Your task to perform on an android device: Show the shopping cart on costco.com. Add "razer blade" to the cart on costco.com, then select checkout. Image 0: 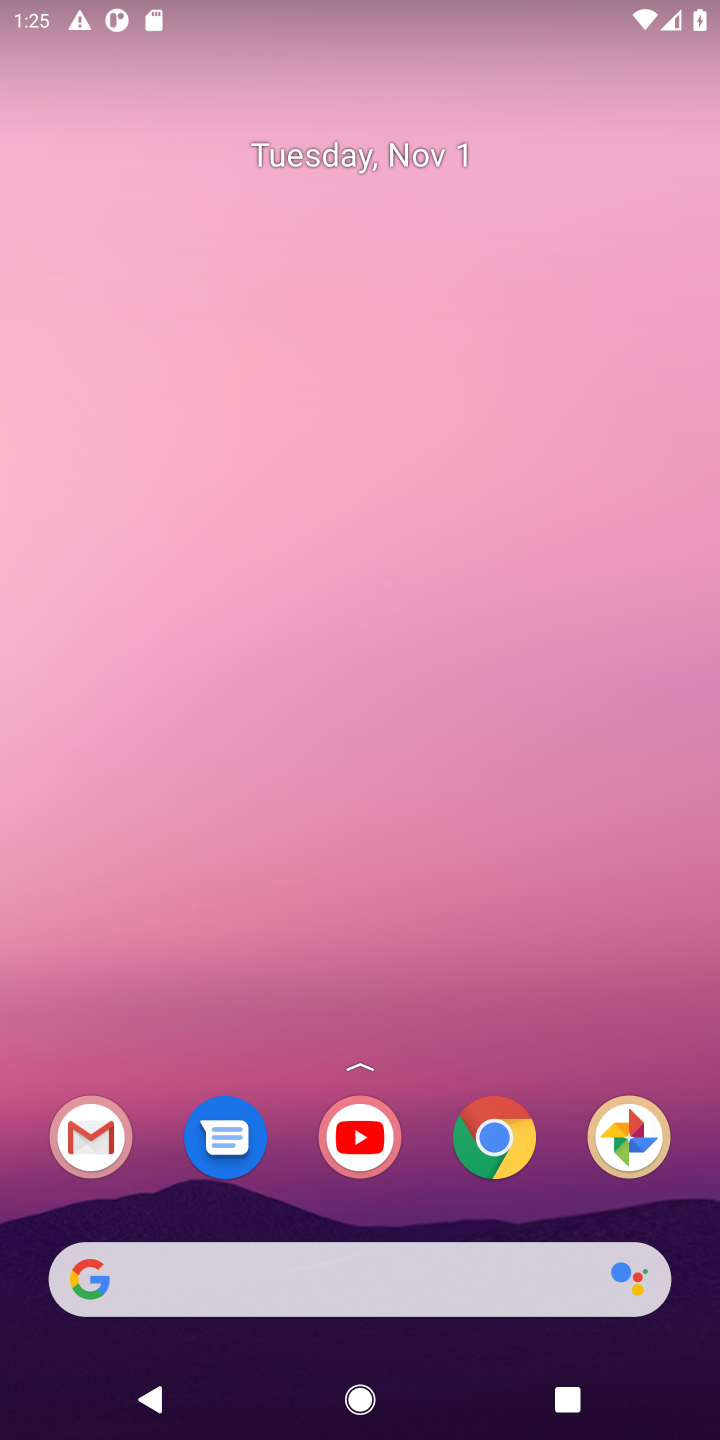
Step 0: drag from (450, 1327) to (564, 143)
Your task to perform on an android device: Show the shopping cart on costco.com. Add "razer blade" to the cart on costco.com, then select checkout. Image 1: 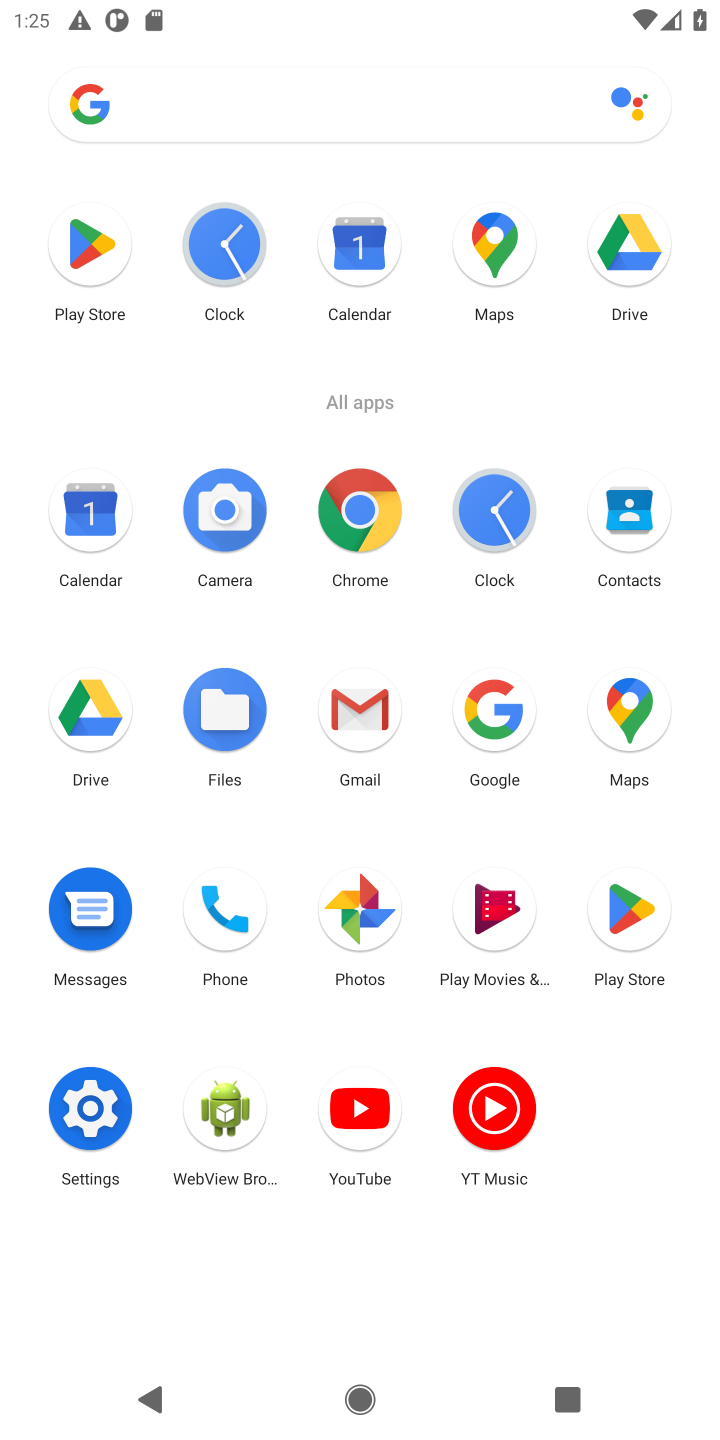
Step 1: click (347, 511)
Your task to perform on an android device: Show the shopping cart on costco.com. Add "razer blade" to the cart on costco.com, then select checkout. Image 2: 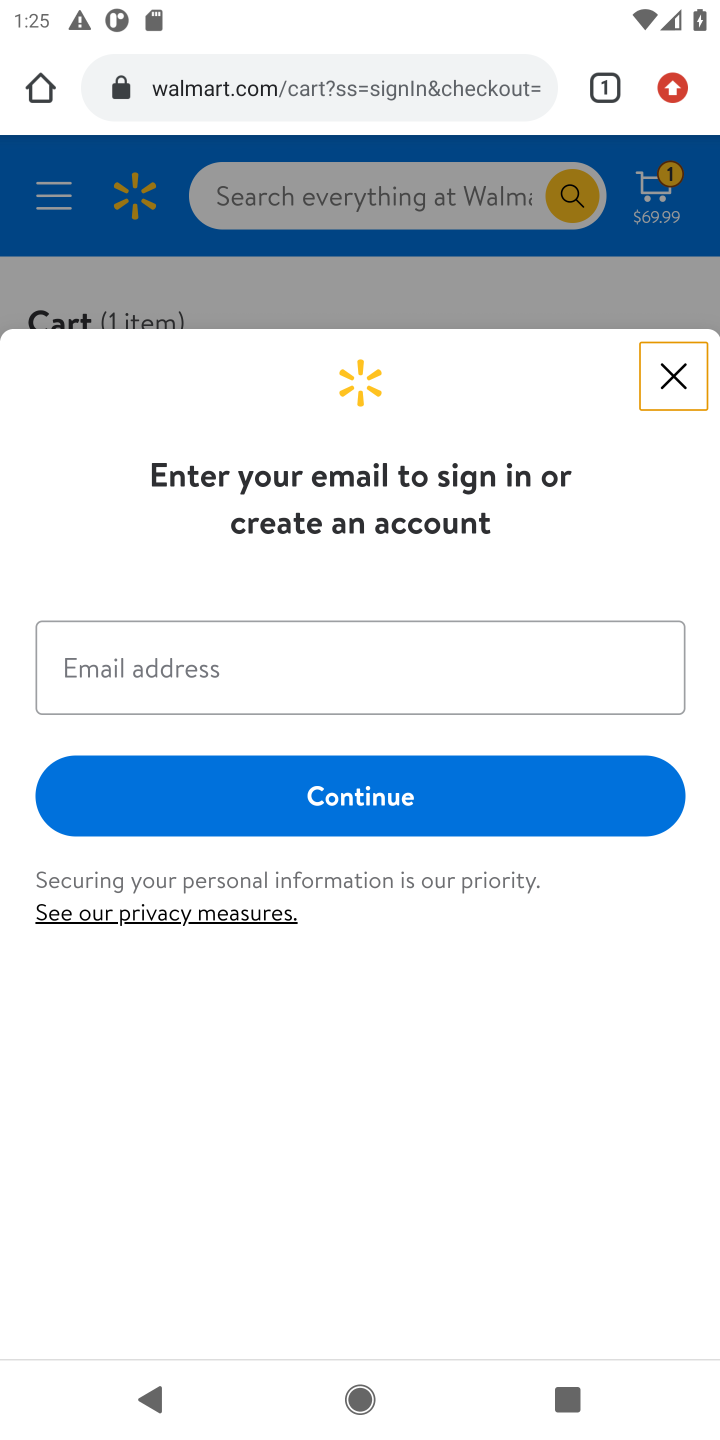
Step 2: click (283, 103)
Your task to perform on an android device: Show the shopping cart on costco.com. Add "razer blade" to the cart on costco.com, then select checkout. Image 3: 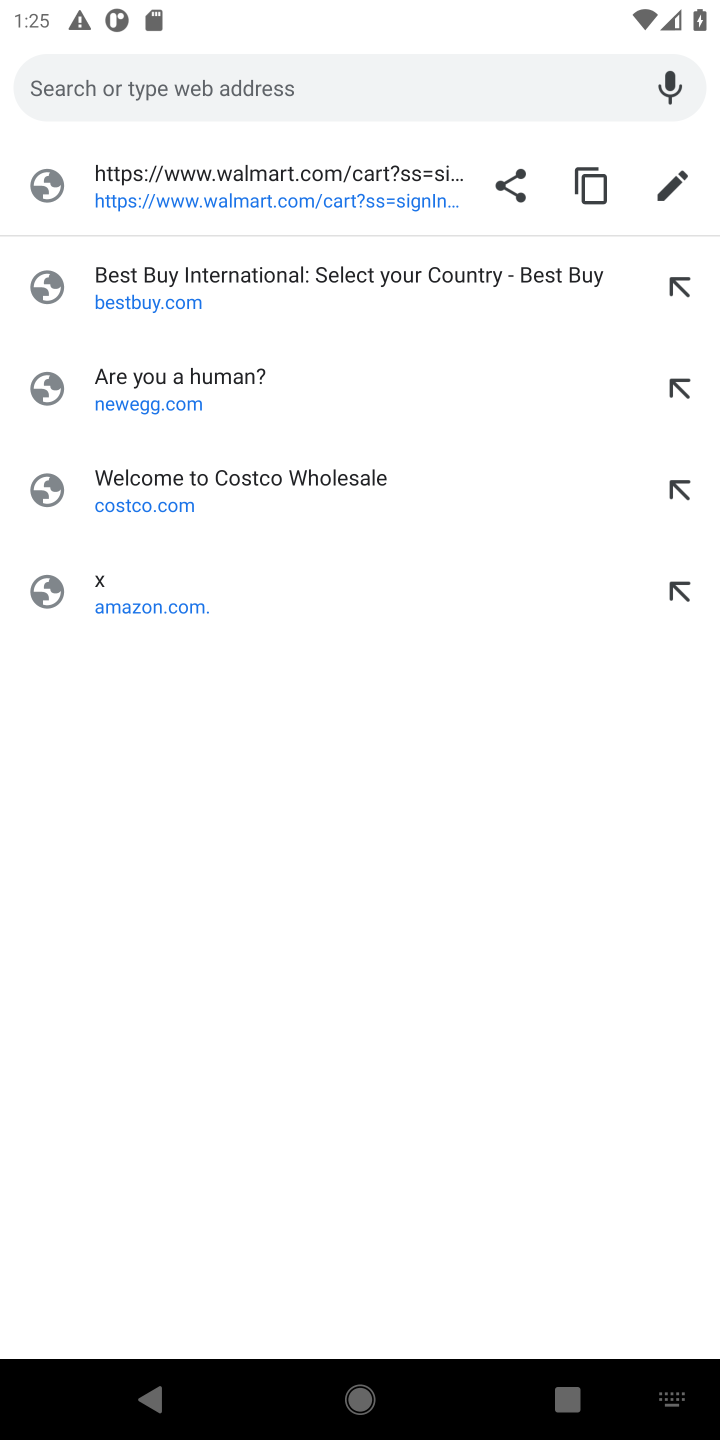
Step 3: type "costco.com"
Your task to perform on an android device: Show the shopping cart on costco.com. Add "razer blade" to the cart on costco.com, then select checkout. Image 4: 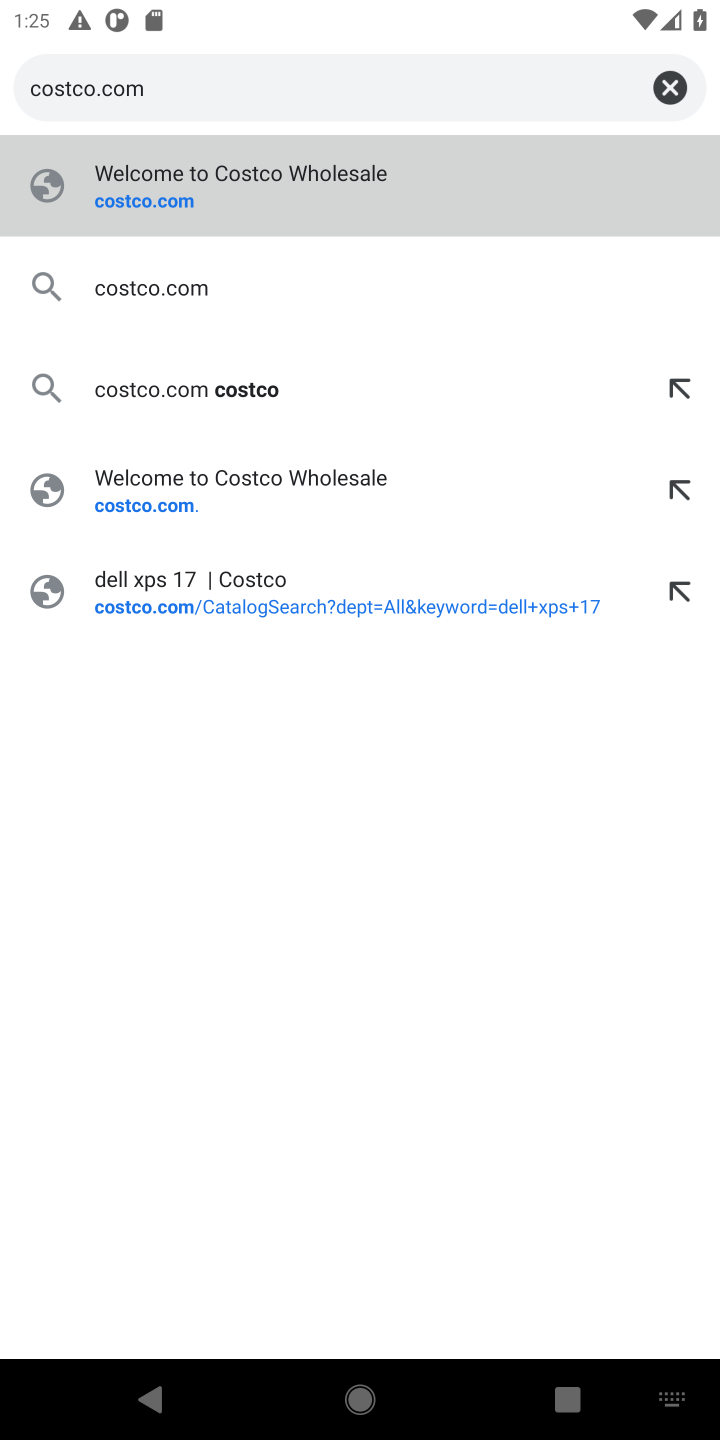
Step 4: press enter
Your task to perform on an android device: Show the shopping cart on costco.com. Add "razer blade" to the cart on costco.com, then select checkout. Image 5: 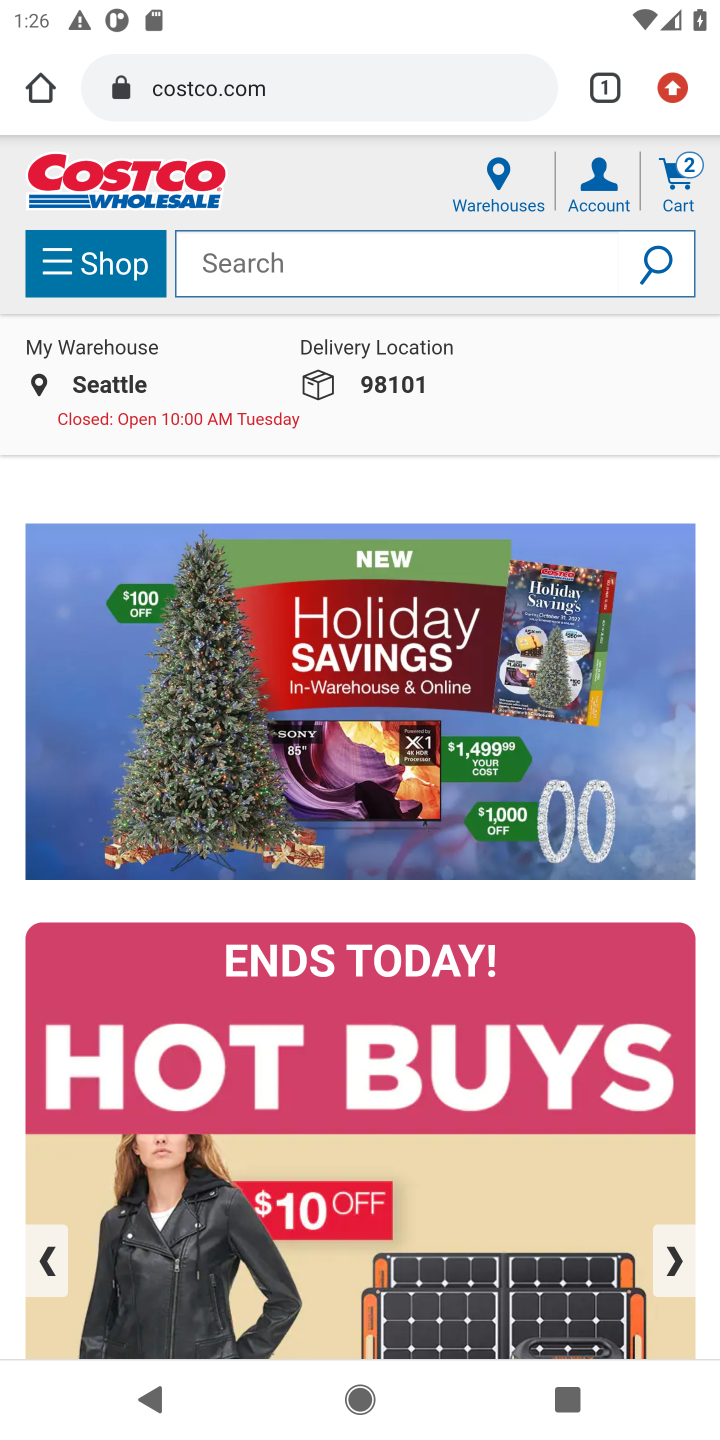
Step 5: click (315, 245)
Your task to perform on an android device: Show the shopping cart on costco.com. Add "razer blade" to the cart on costco.com, then select checkout. Image 6: 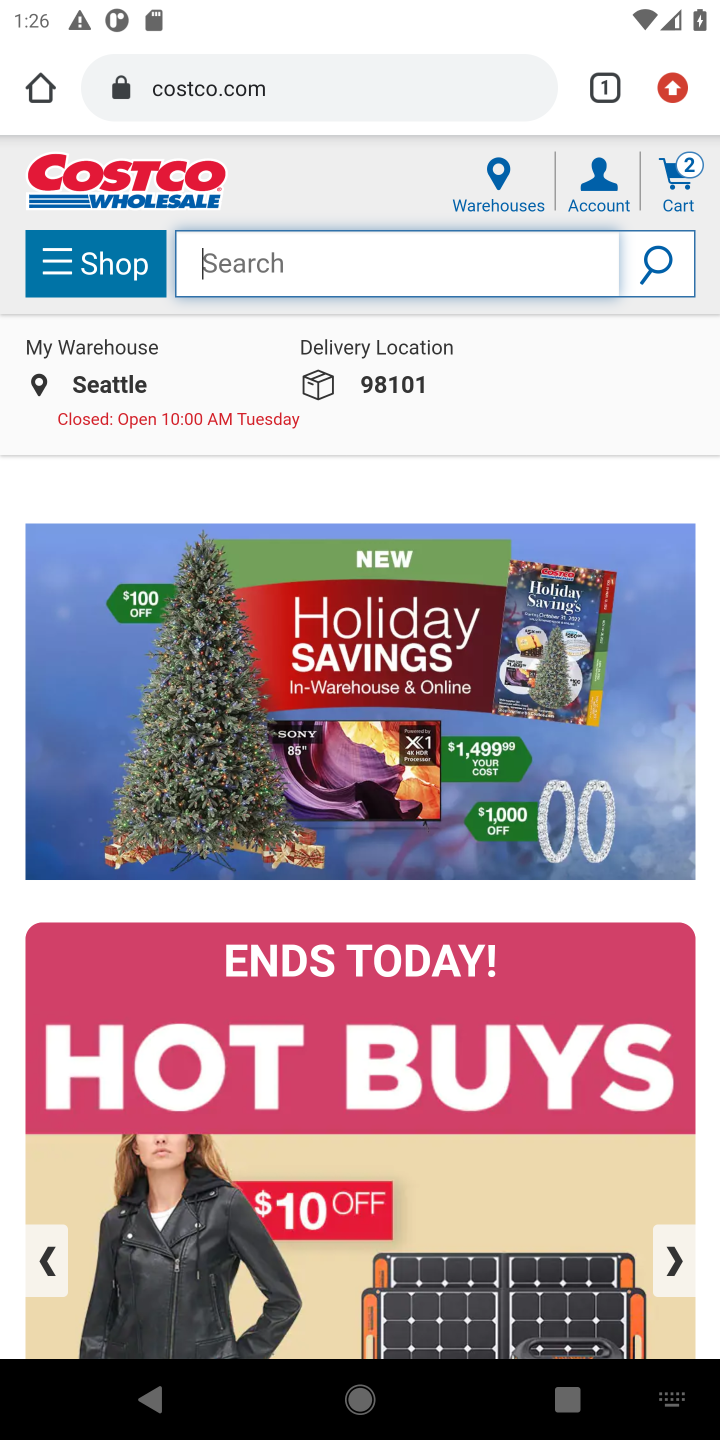
Step 6: type "razer blade"
Your task to perform on an android device: Show the shopping cart on costco.com. Add "razer blade" to the cart on costco.com, then select checkout. Image 7: 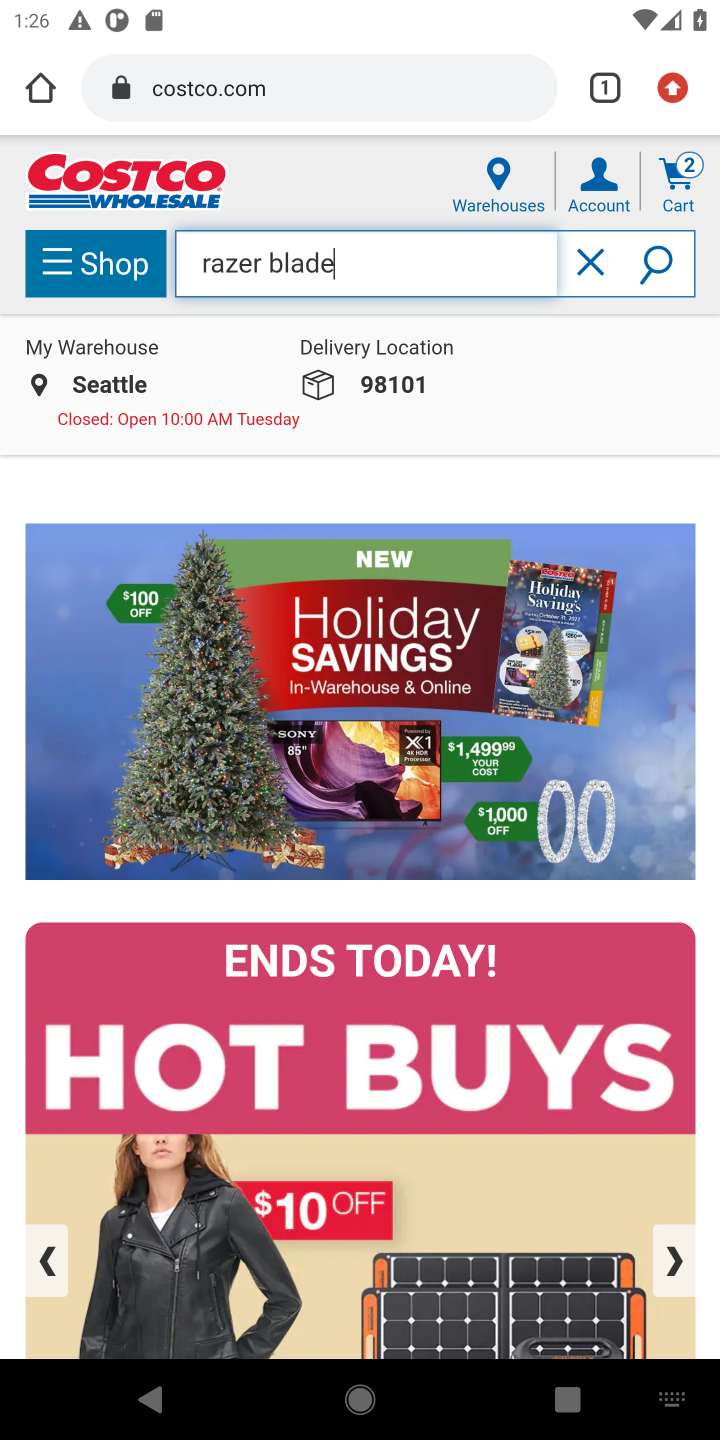
Step 7: press enter
Your task to perform on an android device: Show the shopping cart on costco.com. Add "razer blade" to the cart on costco.com, then select checkout. Image 8: 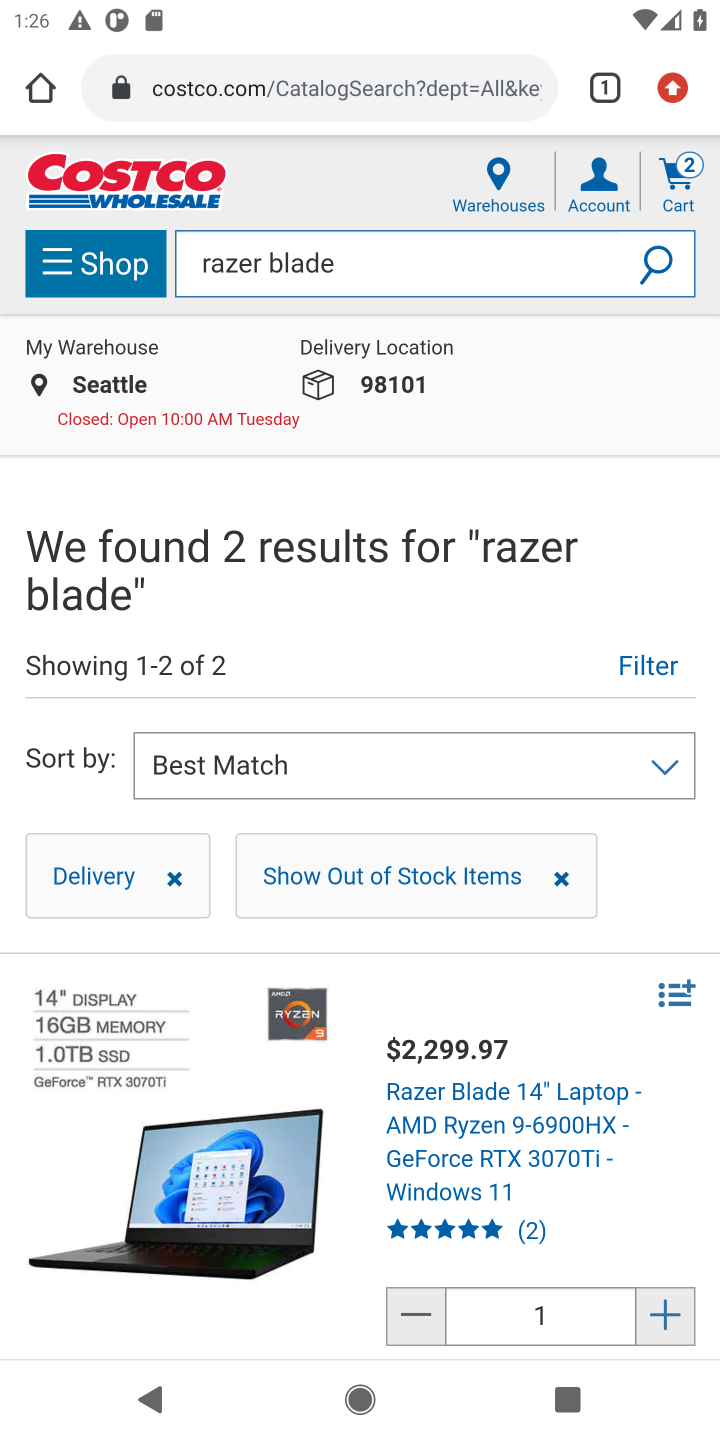
Step 8: drag from (418, 796) to (500, 450)
Your task to perform on an android device: Show the shopping cart on costco.com. Add "razer blade" to the cart on costco.com, then select checkout. Image 9: 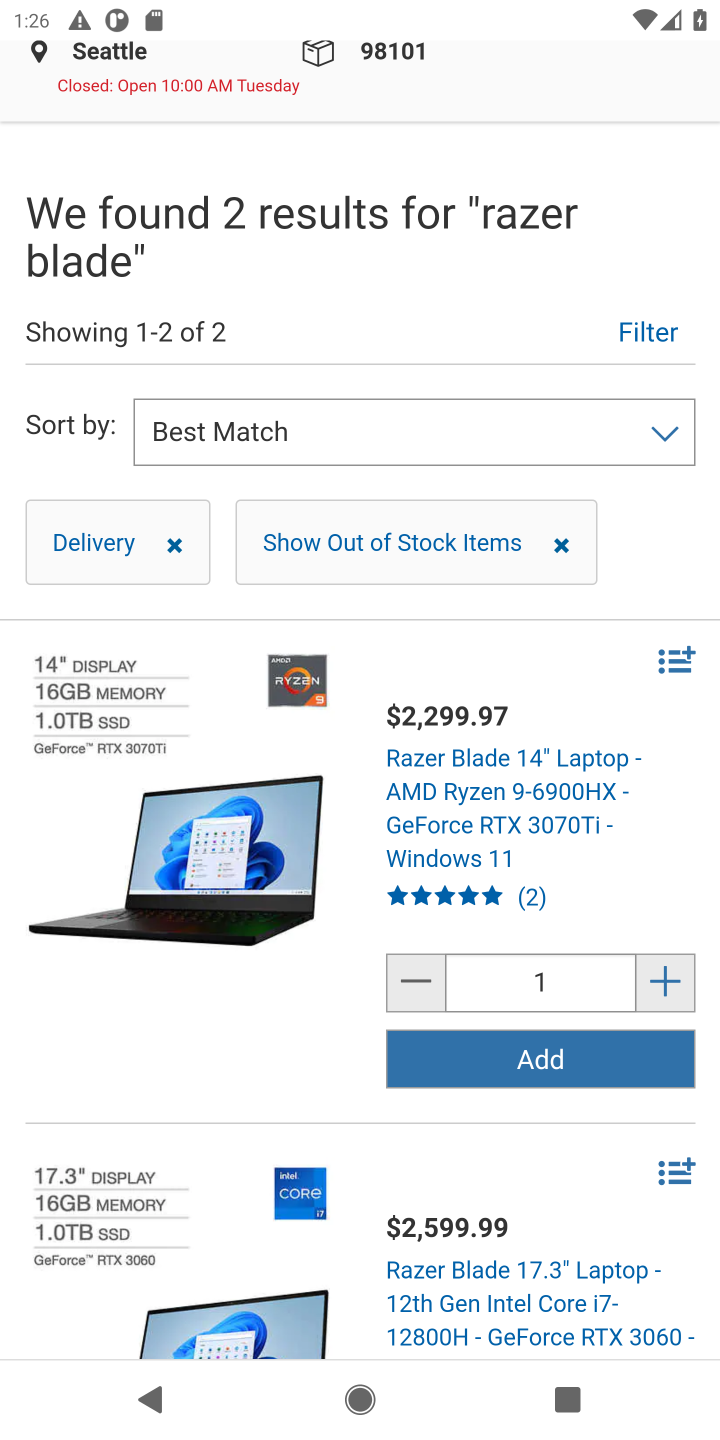
Step 9: click (524, 1061)
Your task to perform on an android device: Show the shopping cart on costco.com. Add "razer blade" to the cart on costco.com, then select checkout. Image 10: 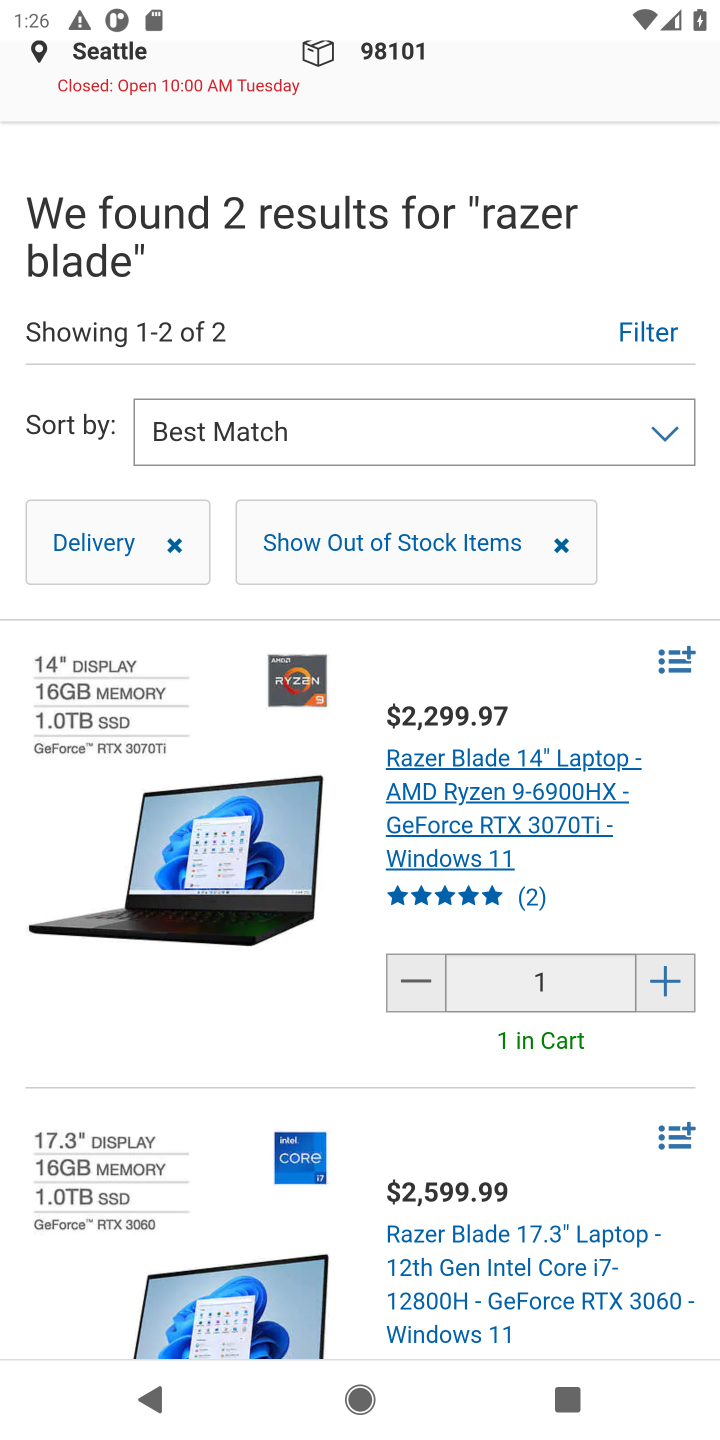
Step 10: drag from (516, 562) to (520, 973)
Your task to perform on an android device: Show the shopping cart on costco.com. Add "razer blade" to the cart on costco.com, then select checkout. Image 11: 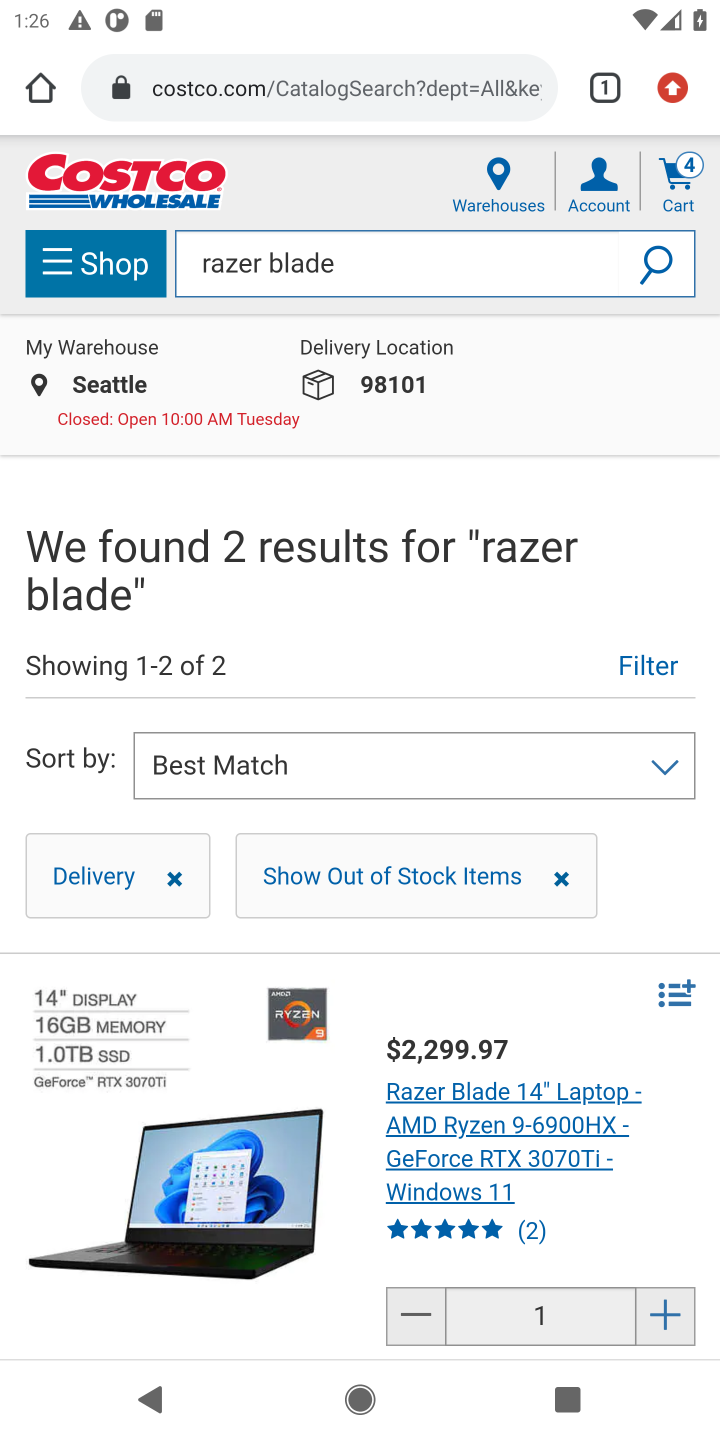
Step 11: click (696, 169)
Your task to perform on an android device: Show the shopping cart on costco.com. Add "razer blade" to the cart on costco.com, then select checkout. Image 12: 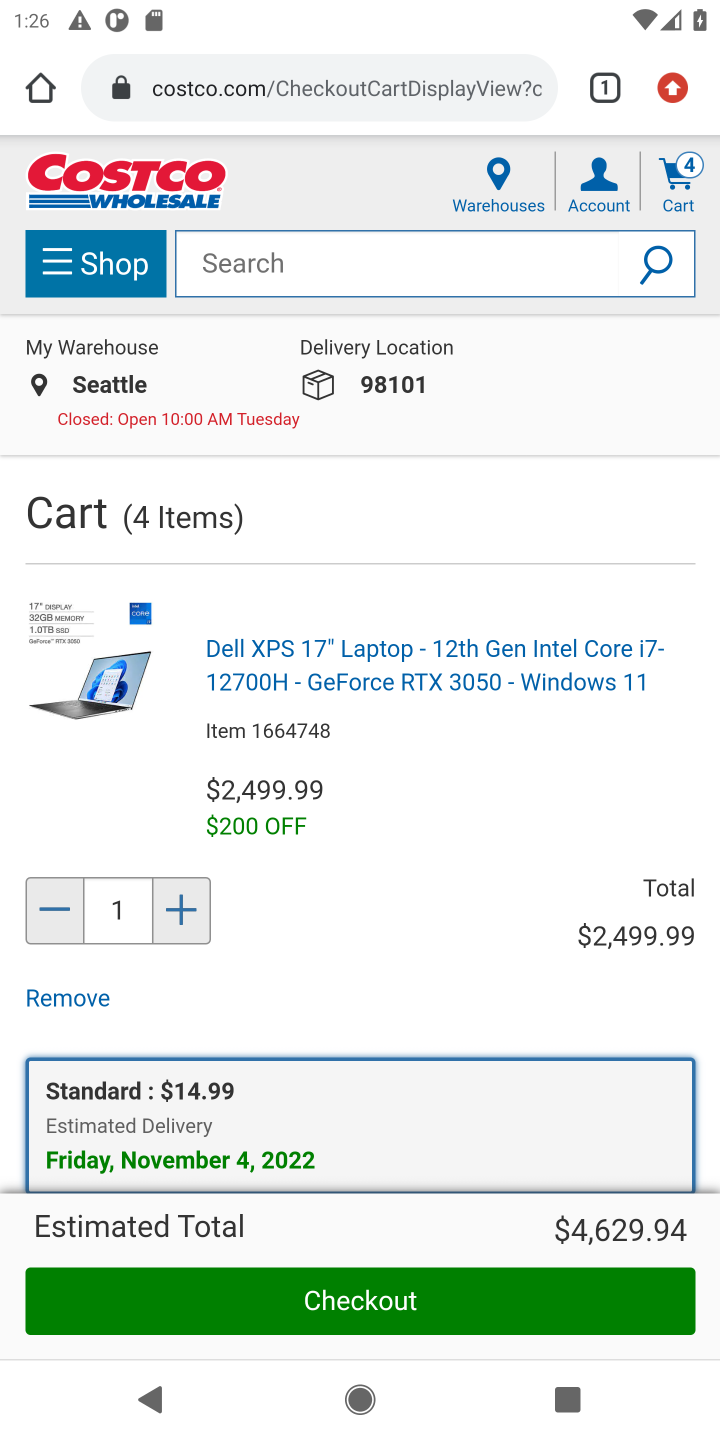
Step 12: click (401, 1291)
Your task to perform on an android device: Show the shopping cart on costco.com. Add "razer blade" to the cart on costco.com, then select checkout. Image 13: 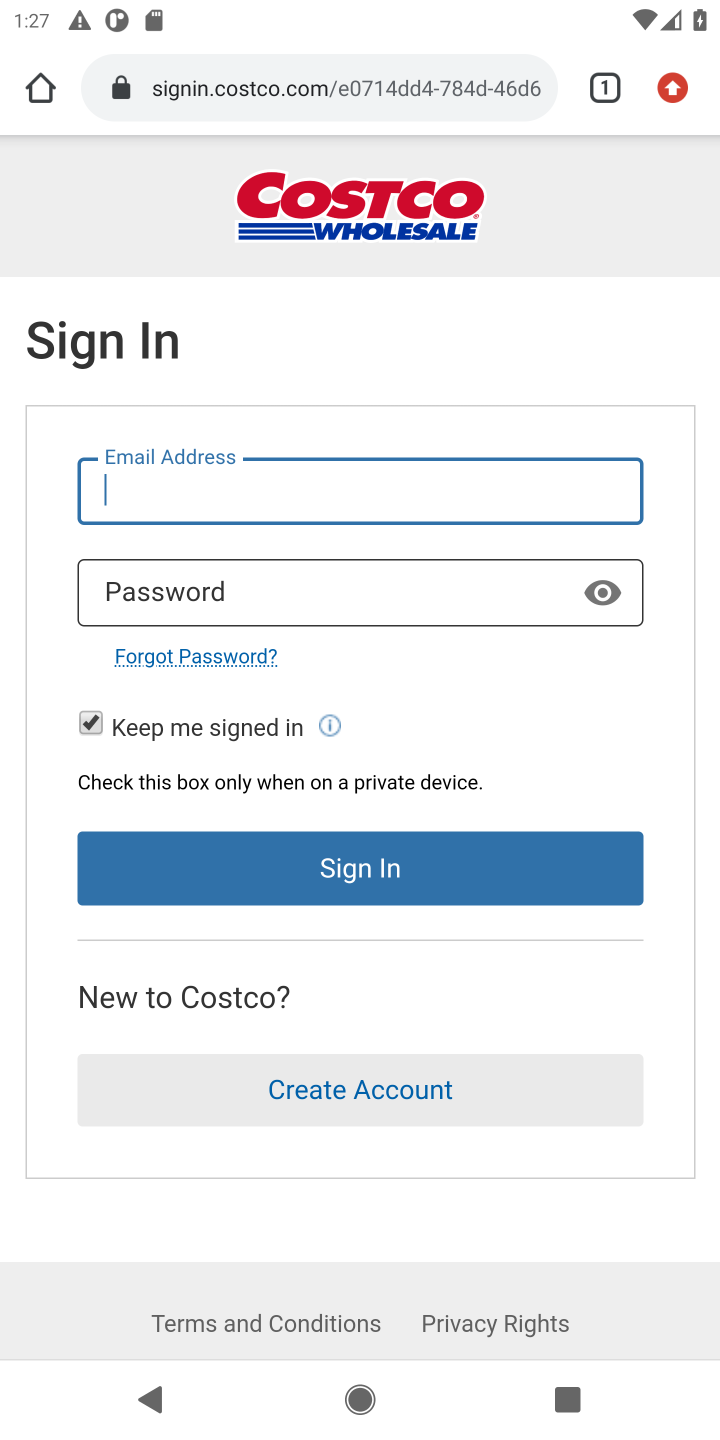
Step 13: task complete